Your task to perform on an android device: empty trash in google photos Image 0: 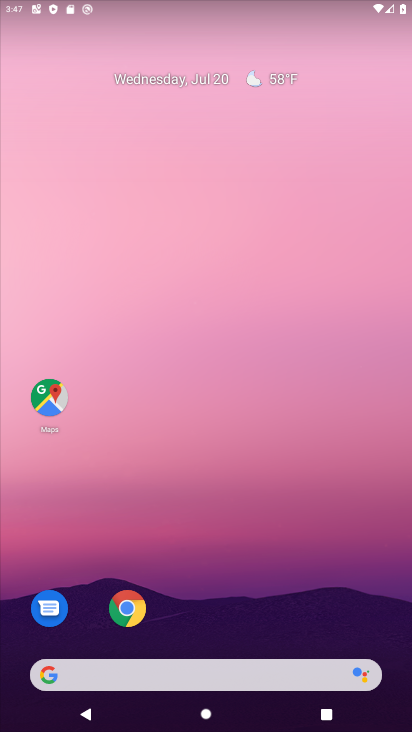
Step 0: drag from (278, 623) to (250, 99)
Your task to perform on an android device: empty trash in google photos Image 1: 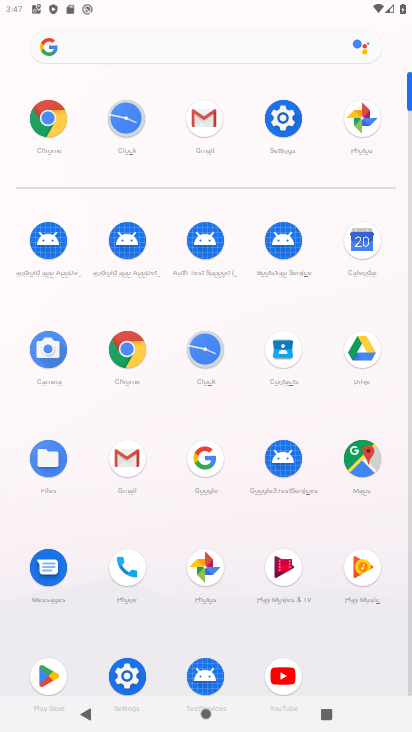
Step 1: click (353, 135)
Your task to perform on an android device: empty trash in google photos Image 2: 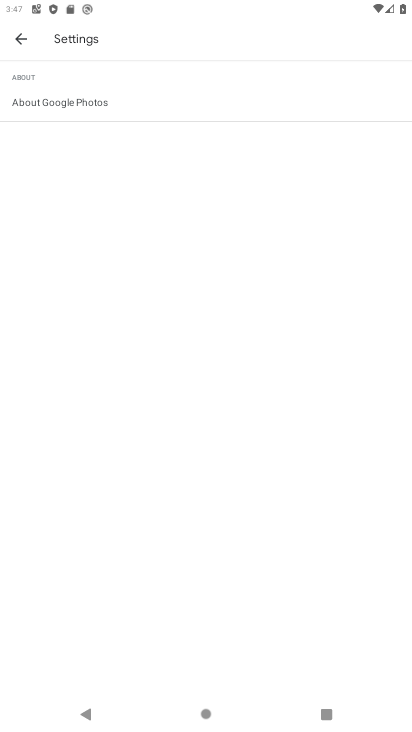
Step 2: task complete